Your task to perform on an android device: turn notification dots on Image 0: 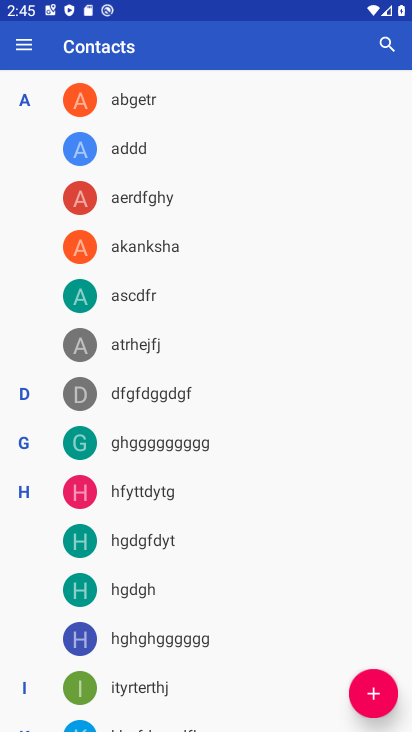
Step 0: press home button
Your task to perform on an android device: turn notification dots on Image 1: 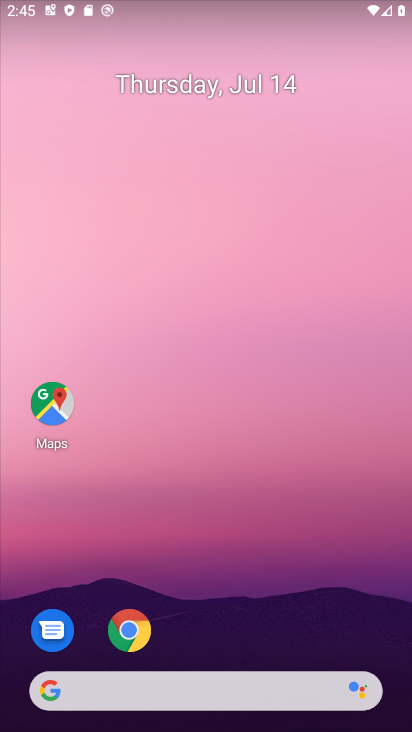
Step 1: drag from (214, 647) to (262, 102)
Your task to perform on an android device: turn notification dots on Image 2: 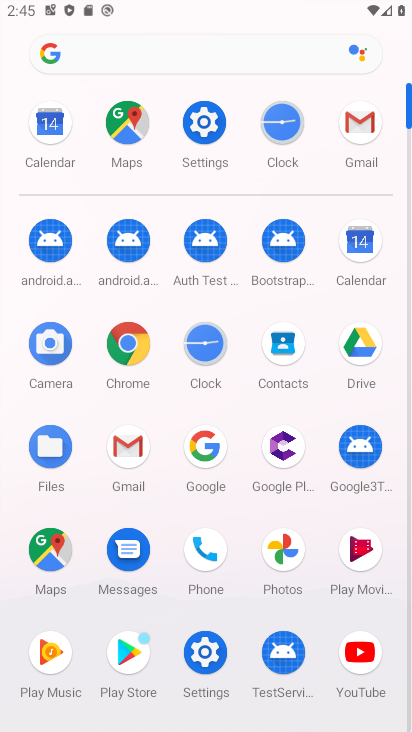
Step 2: click (208, 119)
Your task to perform on an android device: turn notification dots on Image 3: 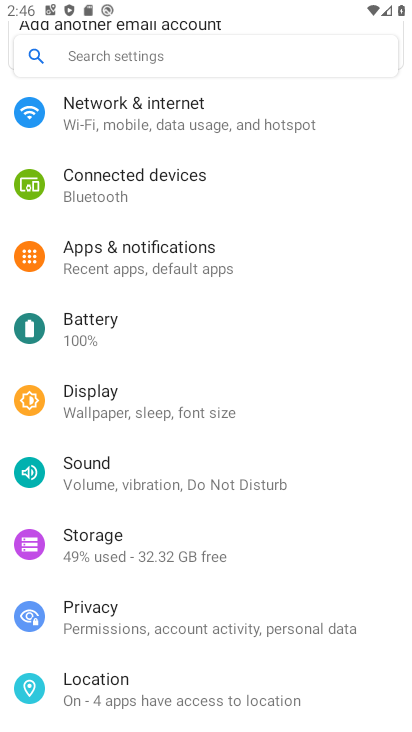
Step 3: click (168, 255)
Your task to perform on an android device: turn notification dots on Image 4: 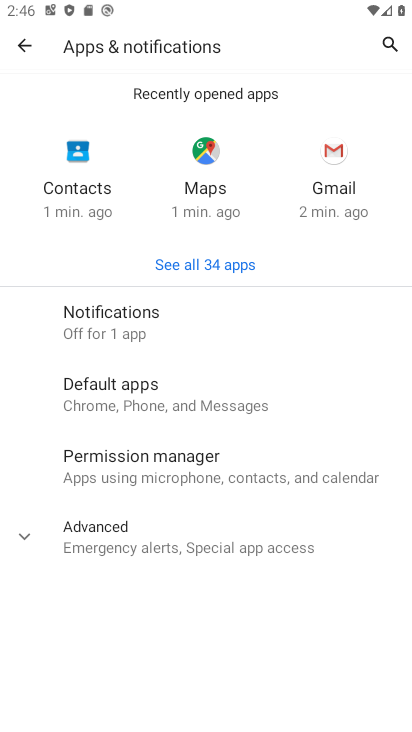
Step 4: click (155, 327)
Your task to perform on an android device: turn notification dots on Image 5: 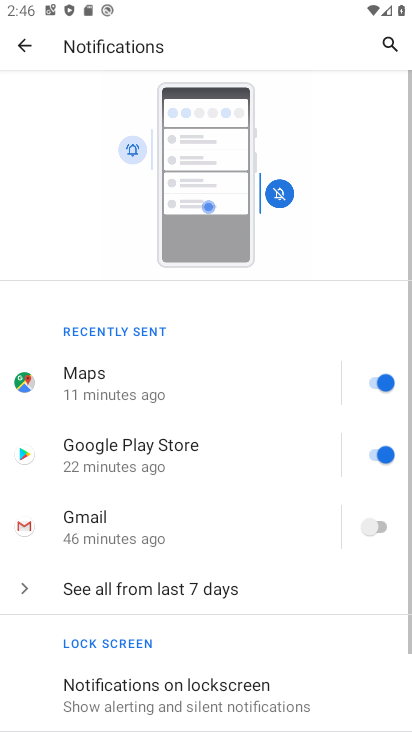
Step 5: drag from (217, 690) to (233, 359)
Your task to perform on an android device: turn notification dots on Image 6: 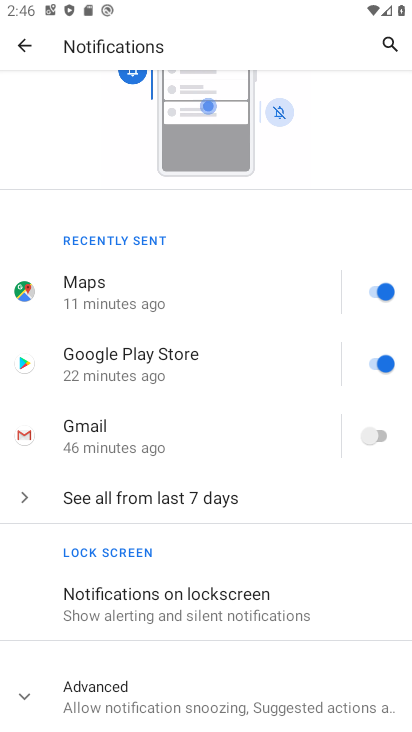
Step 6: click (144, 688)
Your task to perform on an android device: turn notification dots on Image 7: 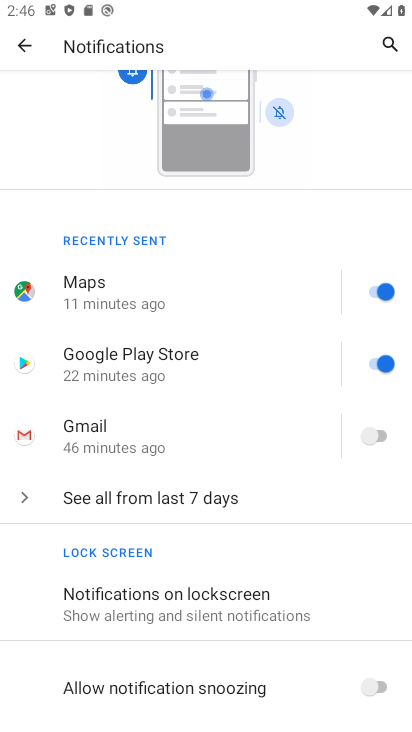
Step 7: task complete